Your task to perform on an android device: change text size in settings app Image 0: 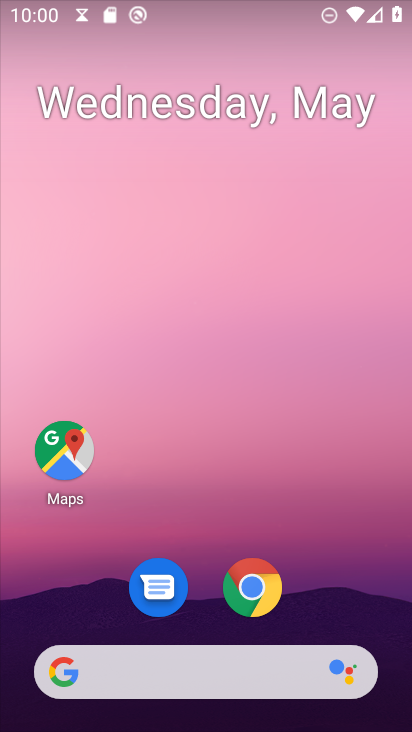
Step 0: drag from (204, 726) to (233, 103)
Your task to perform on an android device: change text size in settings app Image 1: 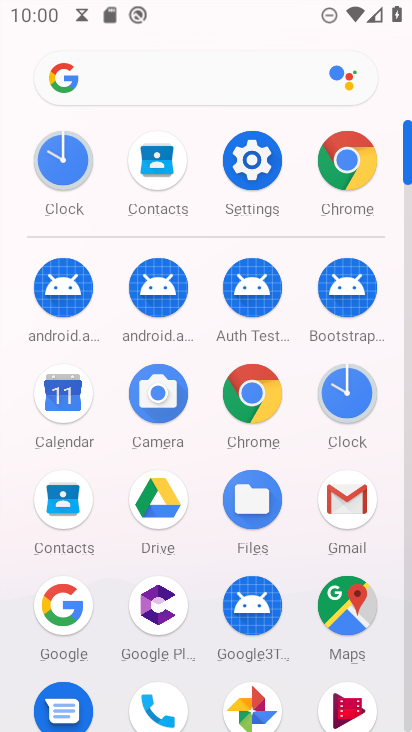
Step 1: click (256, 170)
Your task to perform on an android device: change text size in settings app Image 2: 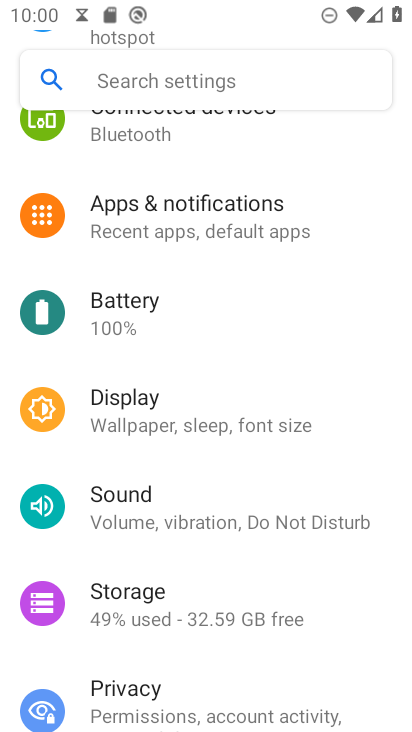
Step 2: drag from (227, 230) to (246, 561)
Your task to perform on an android device: change text size in settings app Image 3: 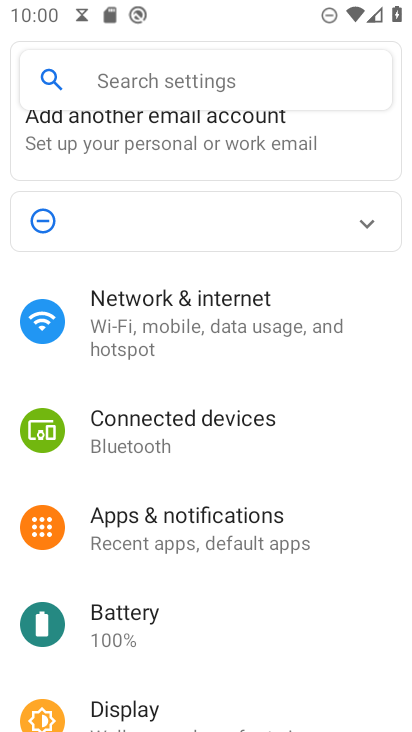
Step 3: drag from (188, 617) to (209, 336)
Your task to perform on an android device: change text size in settings app Image 4: 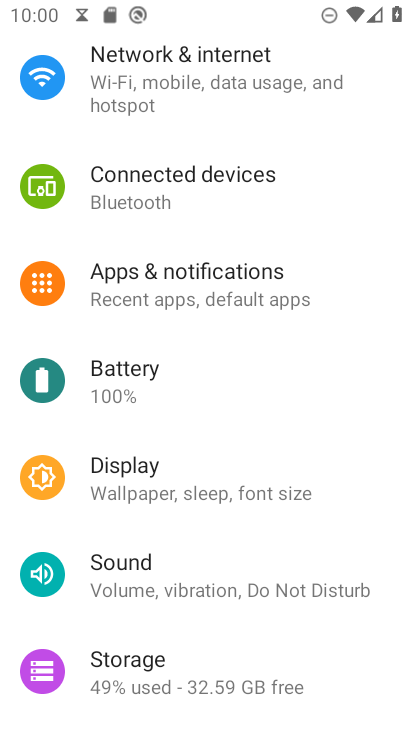
Step 4: drag from (186, 641) to (179, 356)
Your task to perform on an android device: change text size in settings app Image 5: 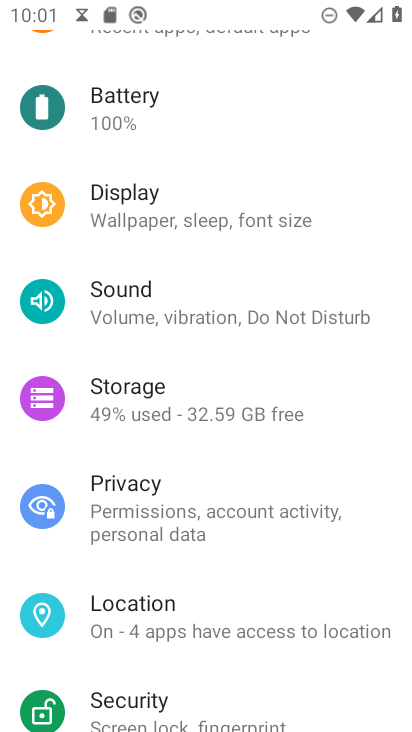
Step 5: drag from (213, 604) to (196, 279)
Your task to perform on an android device: change text size in settings app Image 6: 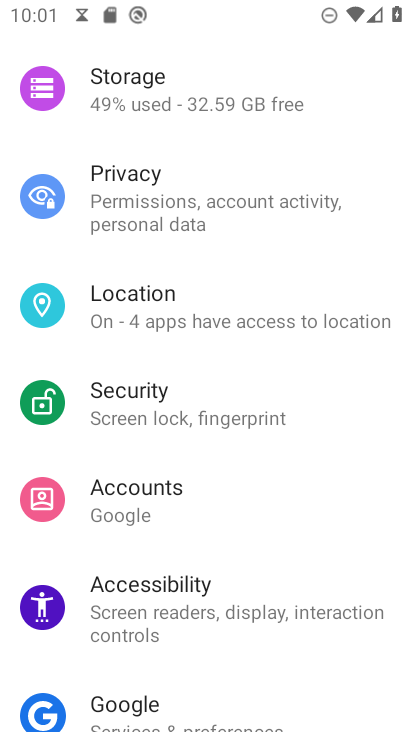
Step 6: drag from (209, 209) to (230, 482)
Your task to perform on an android device: change text size in settings app Image 7: 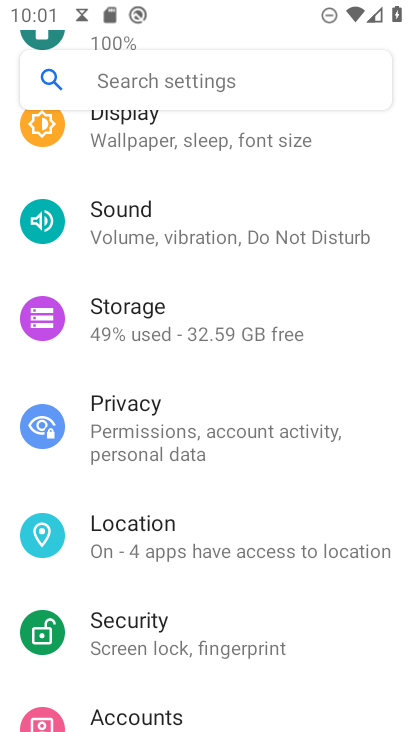
Step 7: drag from (234, 142) to (259, 346)
Your task to perform on an android device: change text size in settings app Image 8: 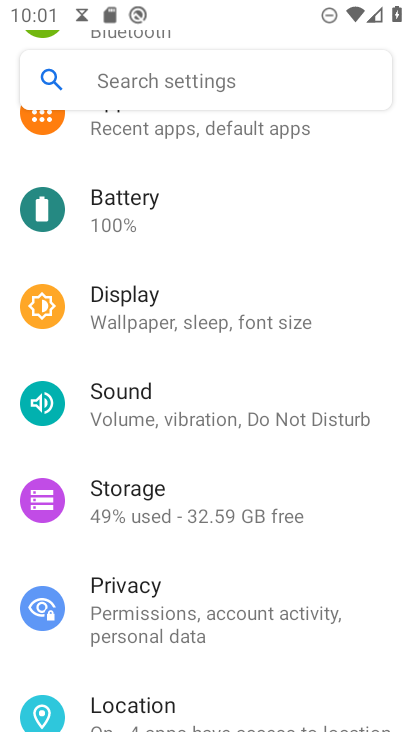
Step 8: click (210, 323)
Your task to perform on an android device: change text size in settings app Image 9: 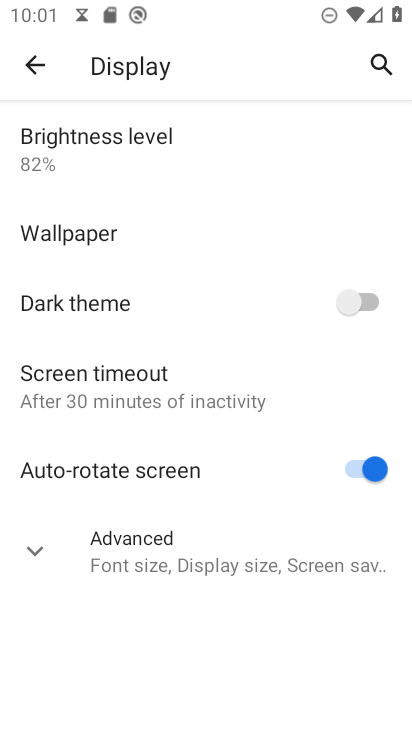
Step 9: click (196, 557)
Your task to perform on an android device: change text size in settings app Image 10: 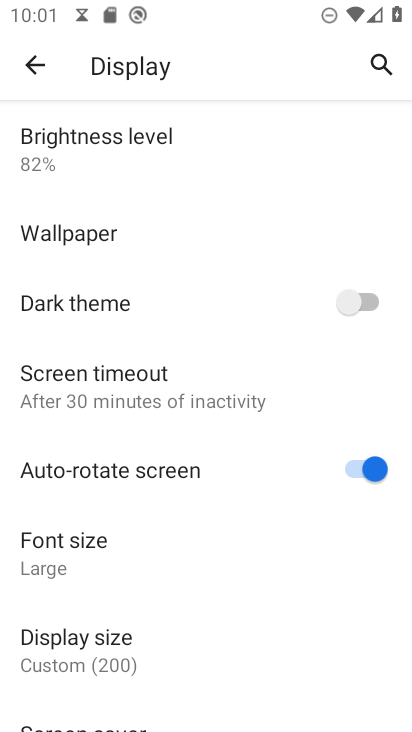
Step 10: click (99, 544)
Your task to perform on an android device: change text size in settings app Image 11: 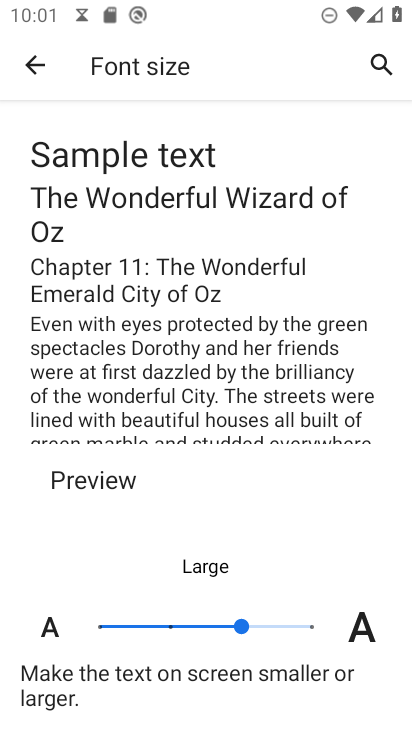
Step 11: click (167, 625)
Your task to perform on an android device: change text size in settings app Image 12: 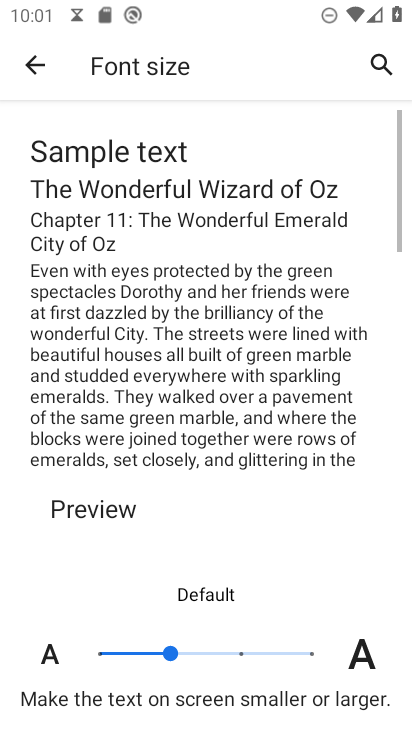
Step 12: task complete